Your task to perform on an android device: open chrome and create a bookmark for the current page Image 0: 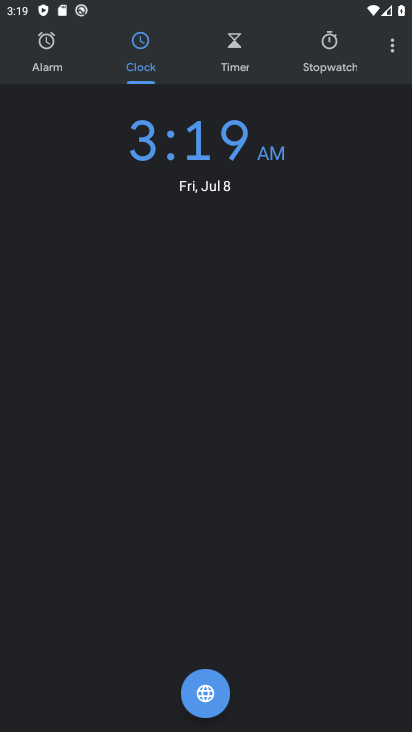
Step 0: press home button
Your task to perform on an android device: open chrome and create a bookmark for the current page Image 1: 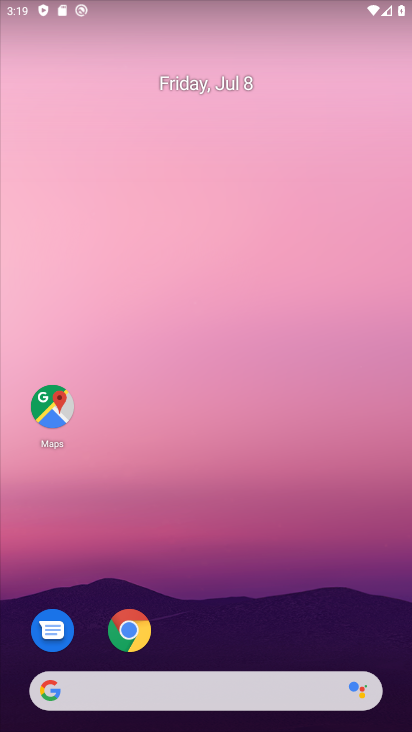
Step 1: click (129, 632)
Your task to perform on an android device: open chrome and create a bookmark for the current page Image 2: 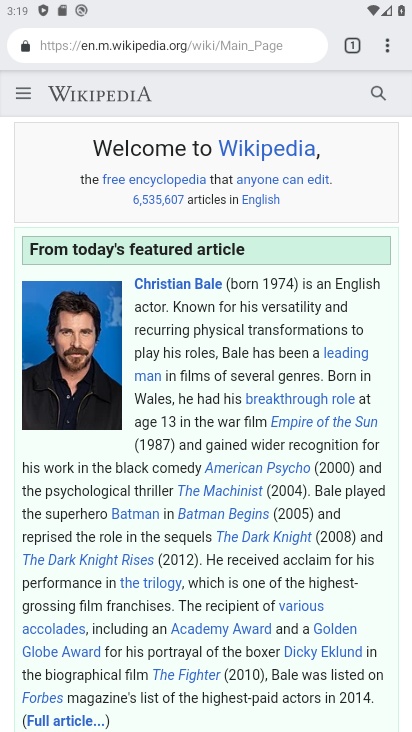
Step 2: click (387, 46)
Your task to perform on an android device: open chrome and create a bookmark for the current page Image 3: 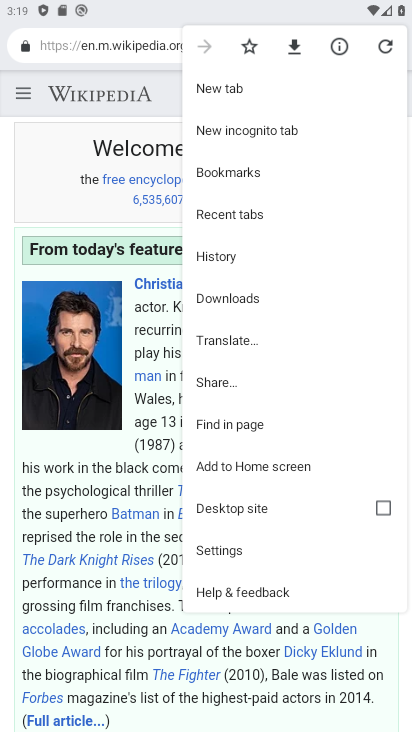
Step 3: click (250, 49)
Your task to perform on an android device: open chrome and create a bookmark for the current page Image 4: 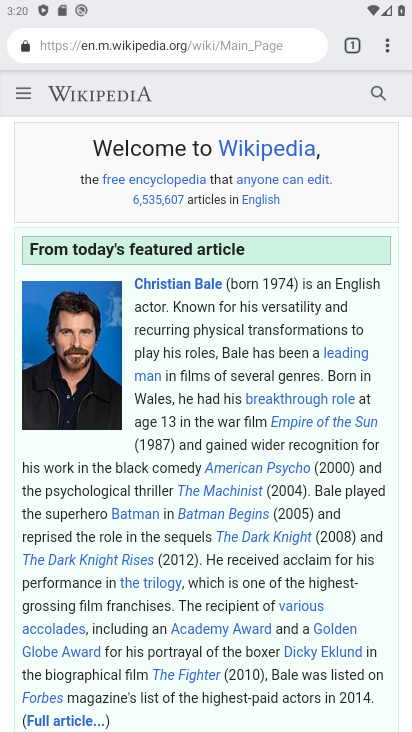
Step 4: task complete